Your task to perform on an android device: Show me the alarms in the clock app Image 0: 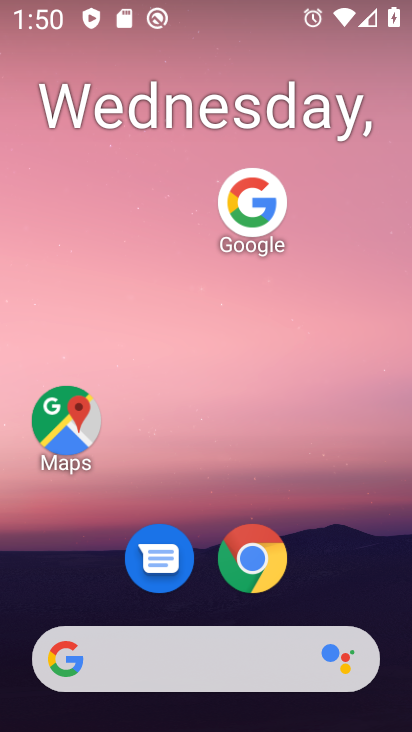
Step 0: drag from (341, 569) to (306, 179)
Your task to perform on an android device: Show me the alarms in the clock app Image 1: 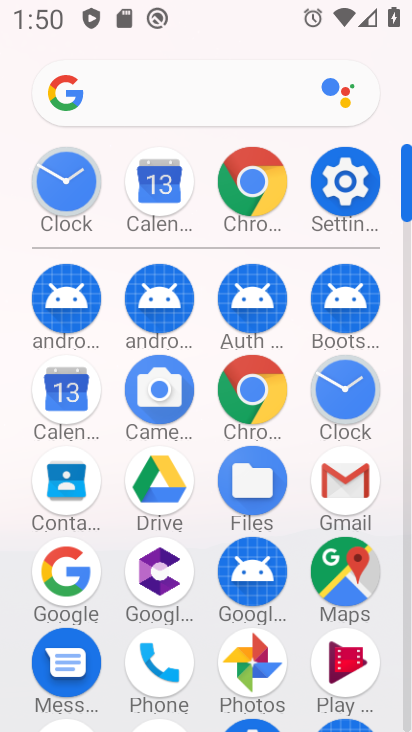
Step 1: click (57, 170)
Your task to perform on an android device: Show me the alarms in the clock app Image 2: 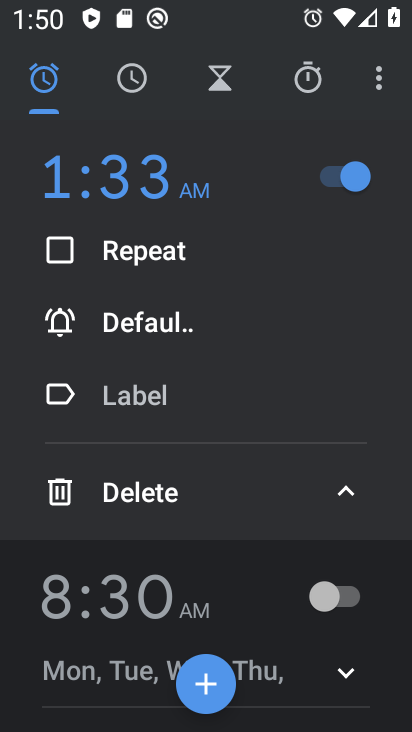
Step 2: task complete